Your task to perform on an android device: Show me the alarms in the clock app Image 0: 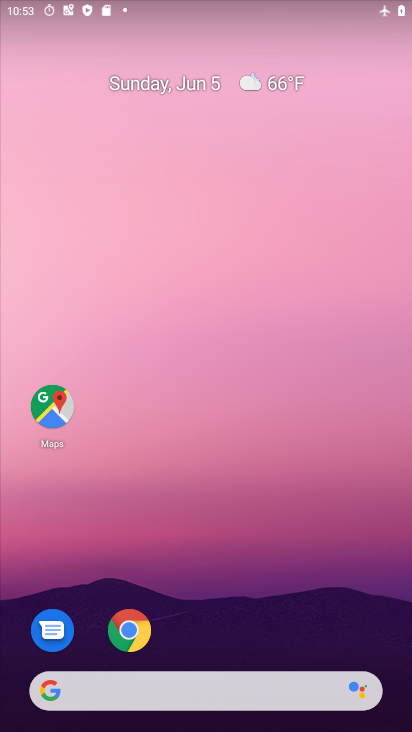
Step 0: drag from (236, 726) to (218, 63)
Your task to perform on an android device: Show me the alarms in the clock app Image 1: 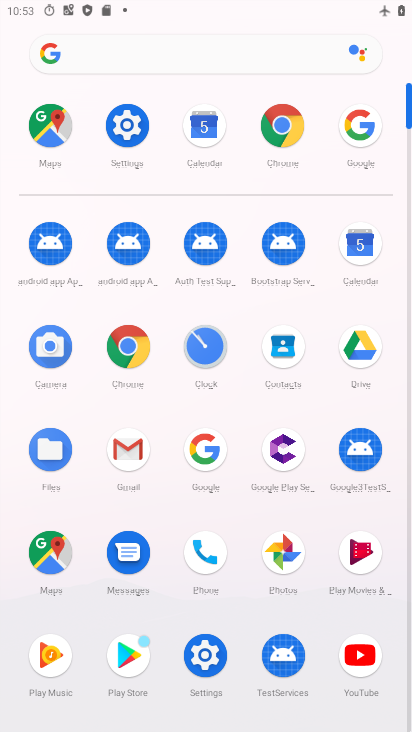
Step 1: click (211, 346)
Your task to perform on an android device: Show me the alarms in the clock app Image 2: 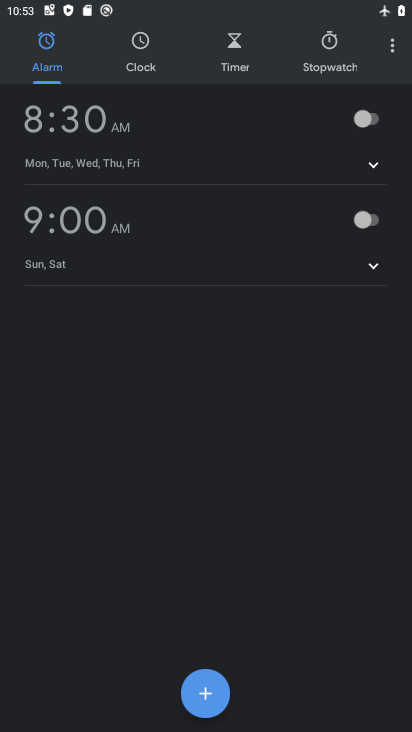
Step 2: task complete